Your task to perform on an android device: turn off improve location accuracy Image 0: 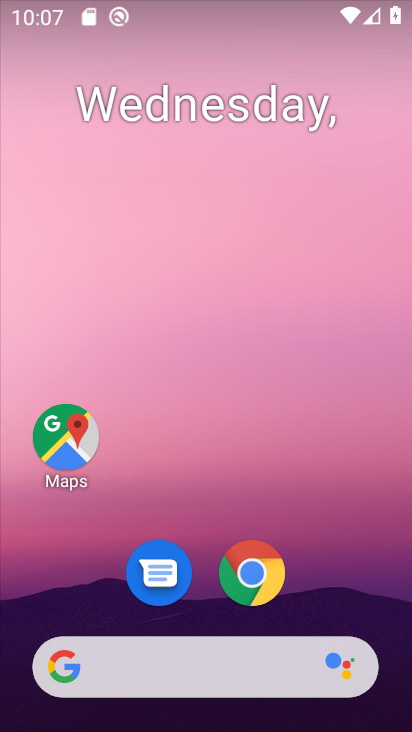
Step 0: drag from (343, 632) to (316, 2)
Your task to perform on an android device: turn off improve location accuracy Image 1: 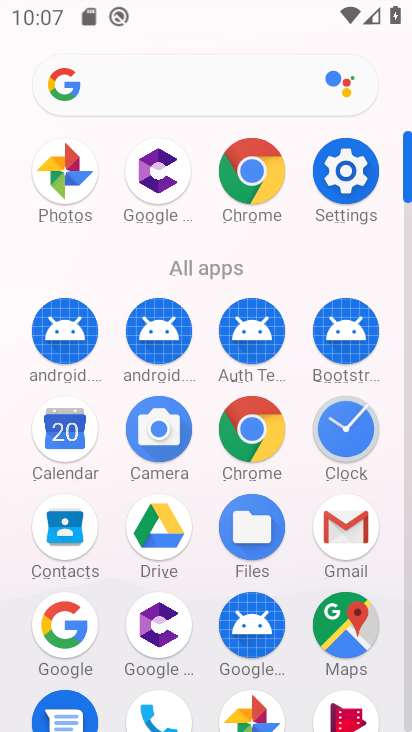
Step 1: click (330, 179)
Your task to perform on an android device: turn off improve location accuracy Image 2: 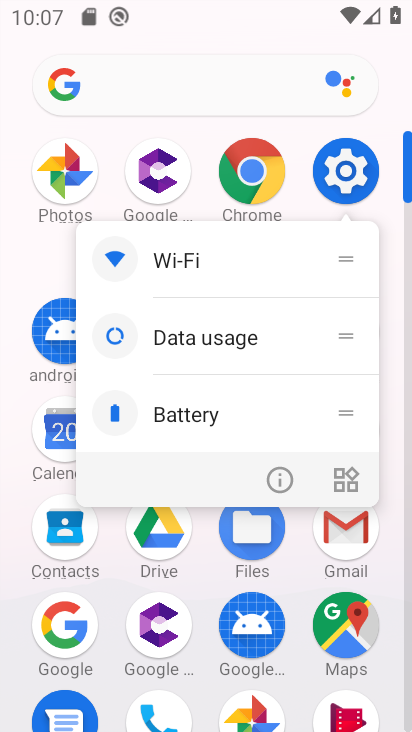
Step 2: click (333, 167)
Your task to perform on an android device: turn off improve location accuracy Image 3: 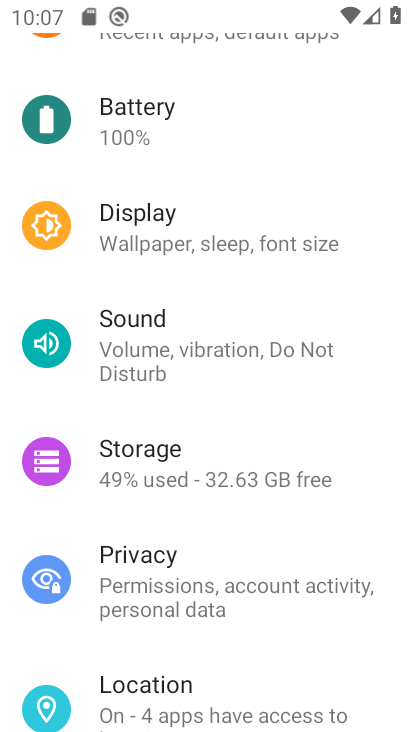
Step 3: click (192, 689)
Your task to perform on an android device: turn off improve location accuracy Image 4: 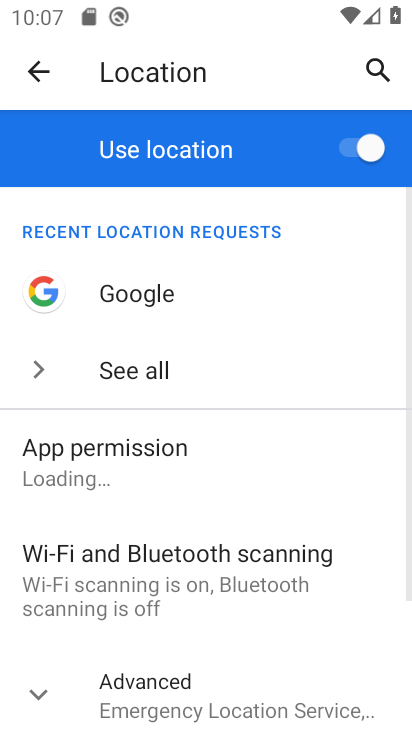
Step 4: drag from (195, 679) to (236, 143)
Your task to perform on an android device: turn off improve location accuracy Image 5: 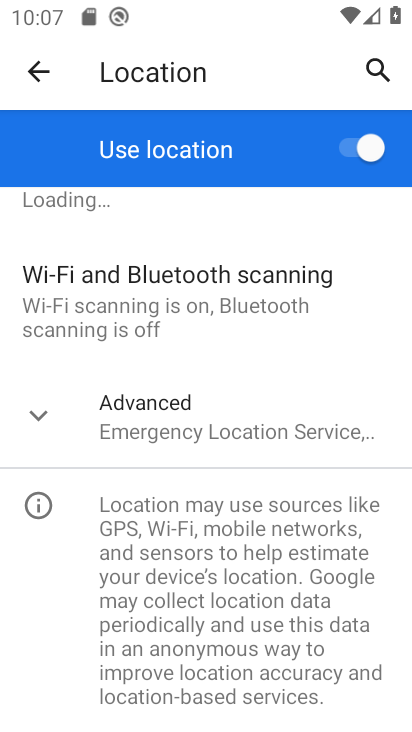
Step 5: click (193, 419)
Your task to perform on an android device: turn off improve location accuracy Image 6: 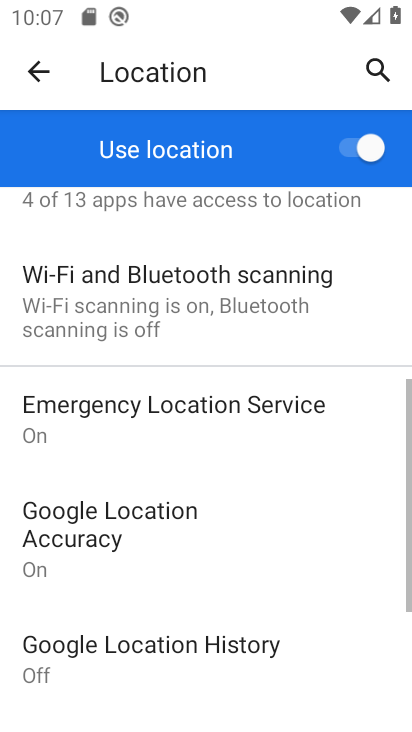
Step 6: drag from (175, 624) to (207, 252)
Your task to perform on an android device: turn off improve location accuracy Image 7: 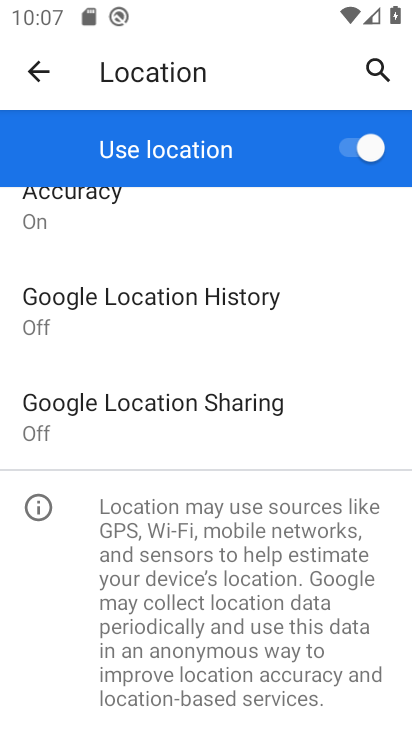
Step 7: click (121, 199)
Your task to perform on an android device: turn off improve location accuracy Image 8: 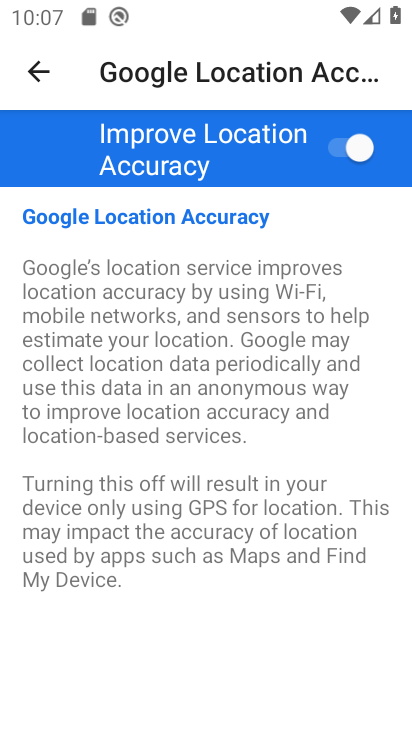
Step 8: click (339, 149)
Your task to perform on an android device: turn off improve location accuracy Image 9: 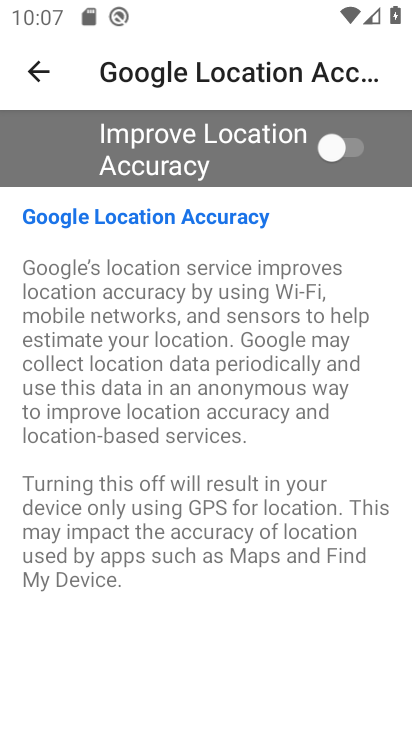
Step 9: task complete